Your task to perform on an android device: allow notifications from all sites in the chrome app Image 0: 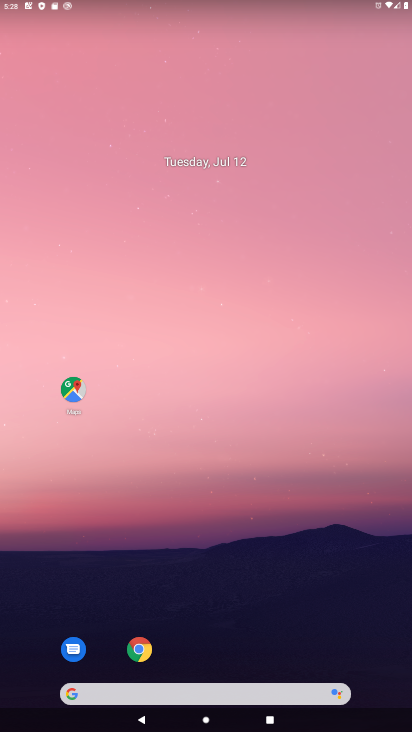
Step 0: click (138, 652)
Your task to perform on an android device: allow notifications from all sites in the chrome app Image 1: 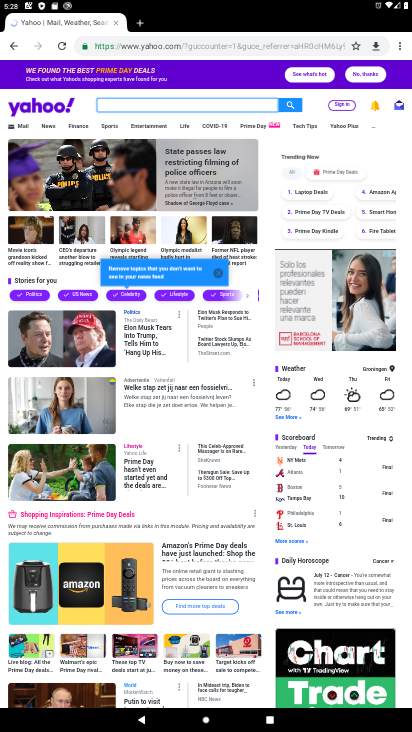
Step 1: click (396, 47)
Your task to perform on an android device: allow notifications from all sites in the chrome app Image 2: 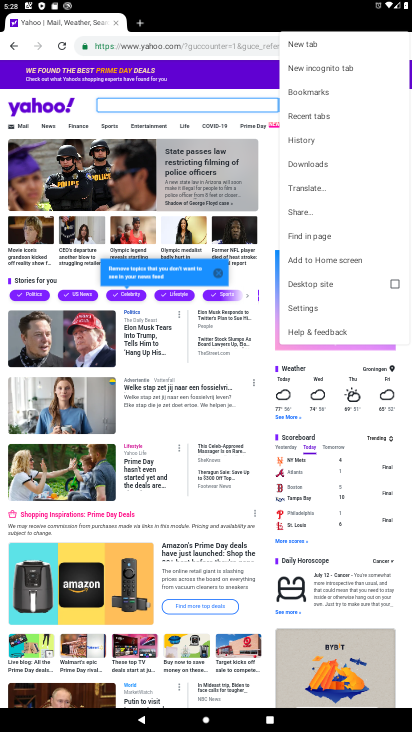
Step 2: click (309, 306)
Your task to perform on an android device: allow notifications from all sites in the chrome app Image 3: 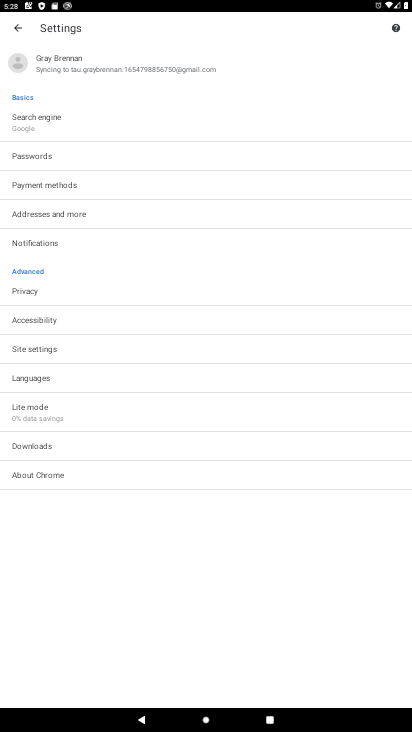
Step 3: click (28, 350)
Your task to perform on an android device: allow notifications from all sites in the chrome app Image 4: 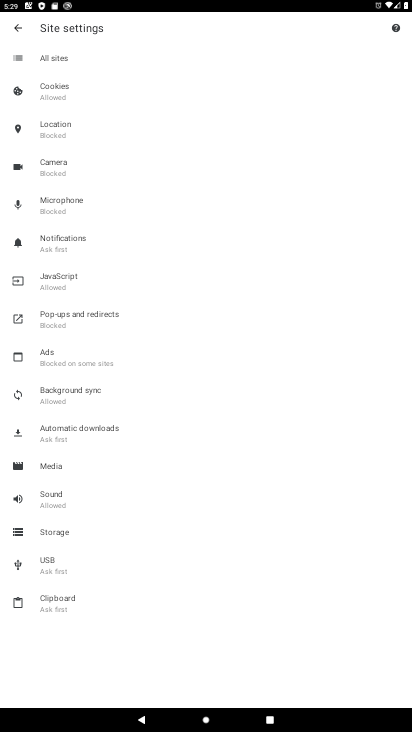
Step 4: click (58, 236)
Your task to perform on an android device: allow notifications from all sites in the chrome app Image 5: 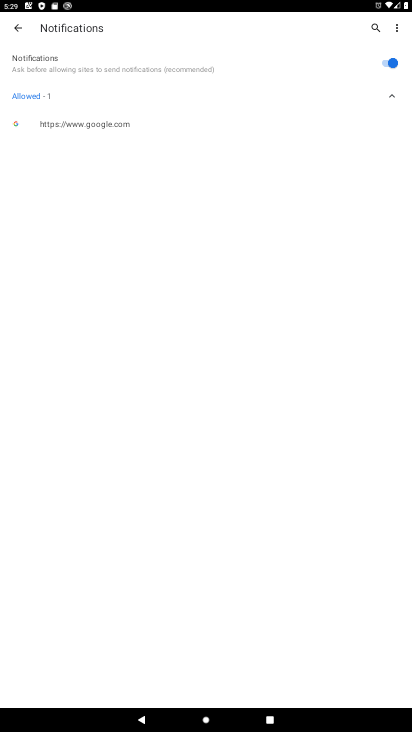
Step 5: task complete